Your task to perform on an android device: toggle improve location accuracy Image 0: 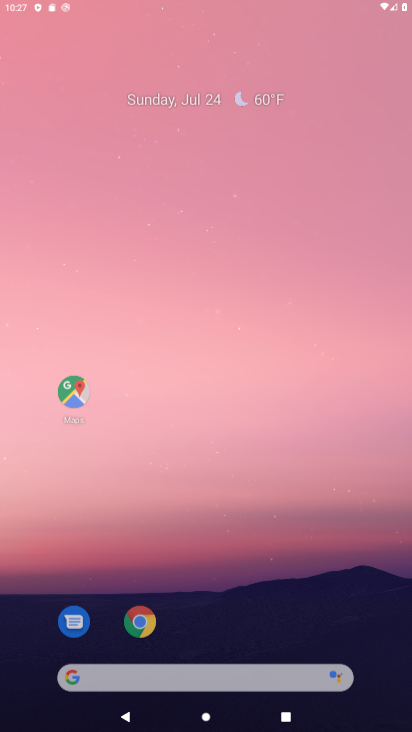
Step 0: press back button
Your task to perform on an android device: toggle improve location accuracy Image 1: 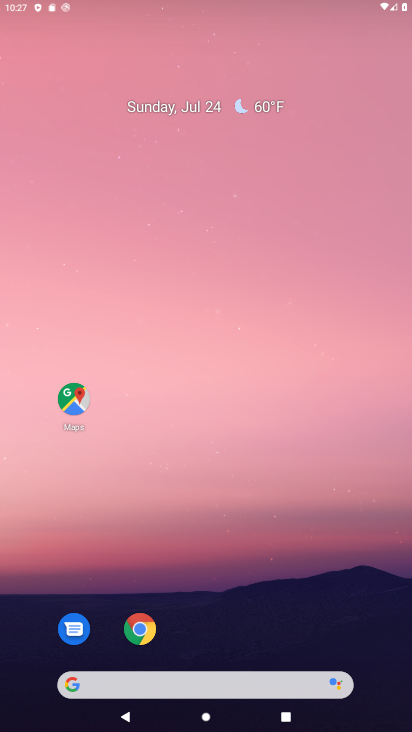
Step 1: drag from (270, 273) to (272, 208)
Your task to perform on an android device: toggle improve location accuracy Image 2: 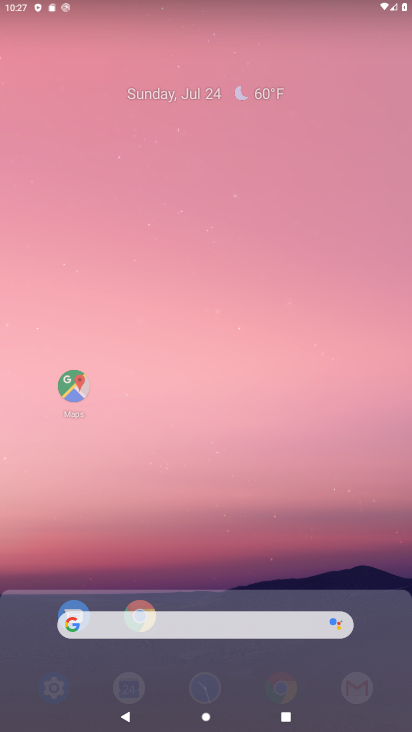
Step 2: drag from (241, 532) to (252, 215)
Your task to perform on an android device: toggle improve location accuracy Image 3: 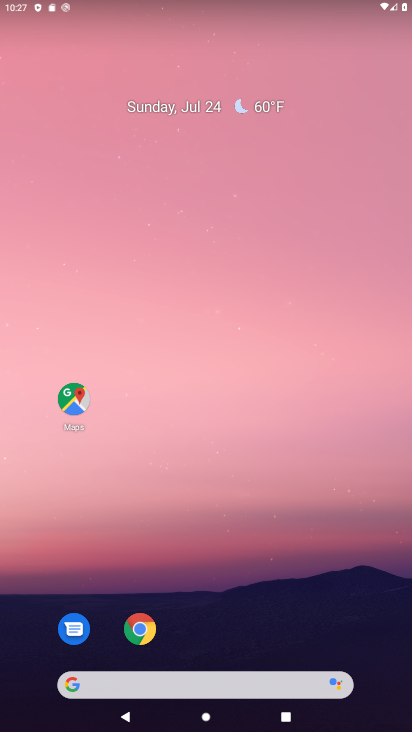
Step 3: drag from (295, 697) to (275, 175)
Your task to perform on an android device: toggle improve location accuracy Image 4: 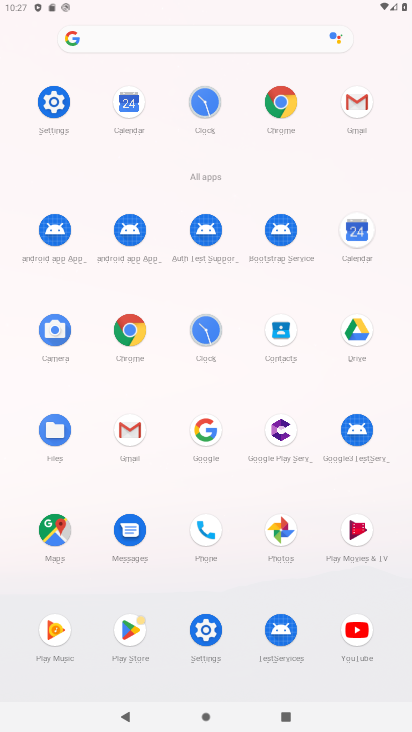
Step 4: drag from (246, 441) to (248, 318)
Your task to perform on an android device: toggle improve location accuracy Image 5: 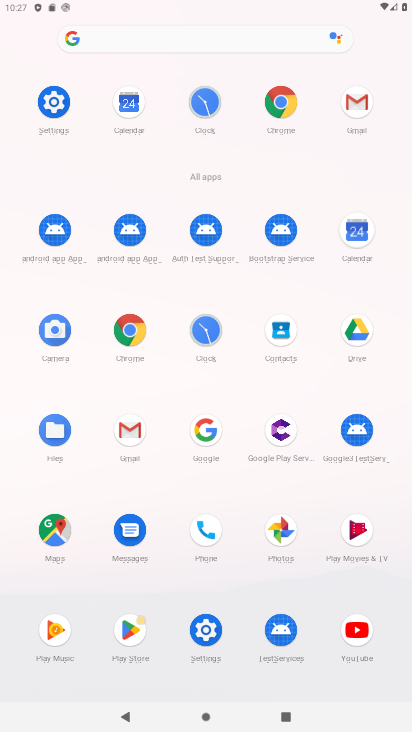
Step 5: click (211, 629)
Your task to perform on an android device: toggle improve location accuracy Image 6: 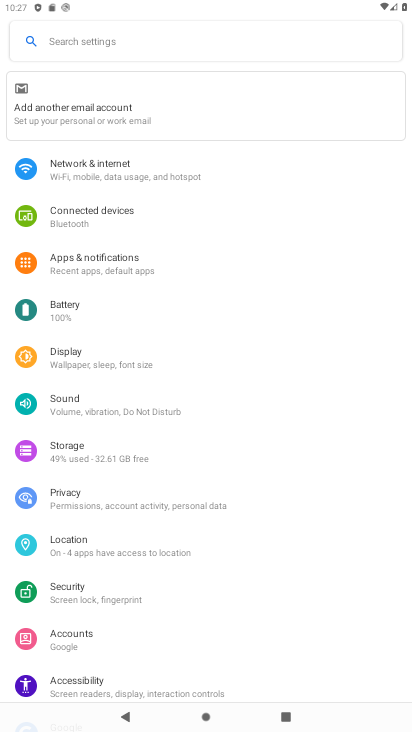
Step 6: click (87, 541)
Your task to perform on an android device: toggle improve location accuracy Image 7: 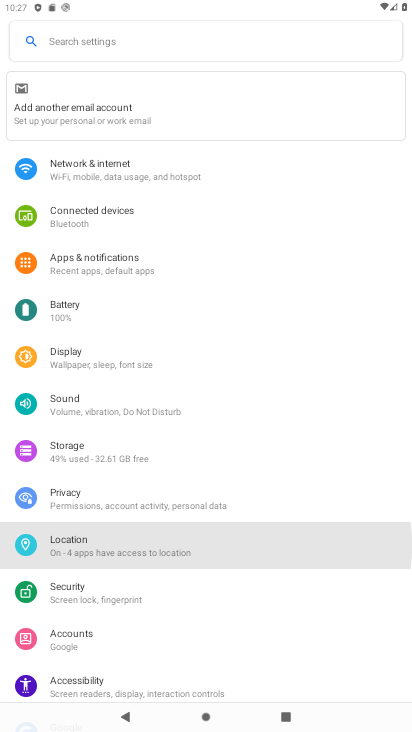
Step 7: click (94, 540)
Your task to perform on an android device: toggle improve location accuracy Image 8: 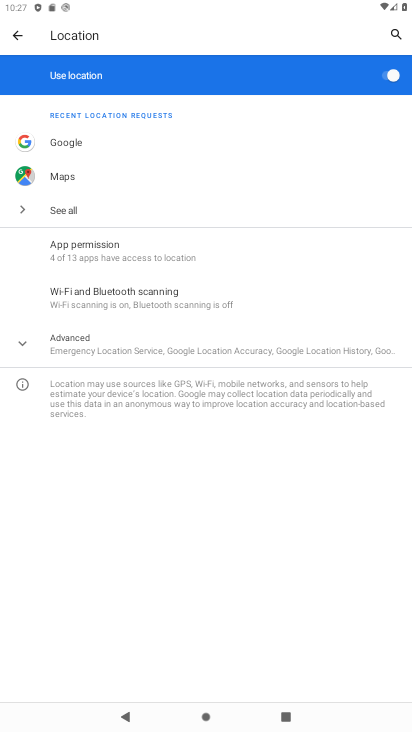
Step 8: click (76, 354)
Your task to perform on an android device: toggle improve location accuracy Image 9: 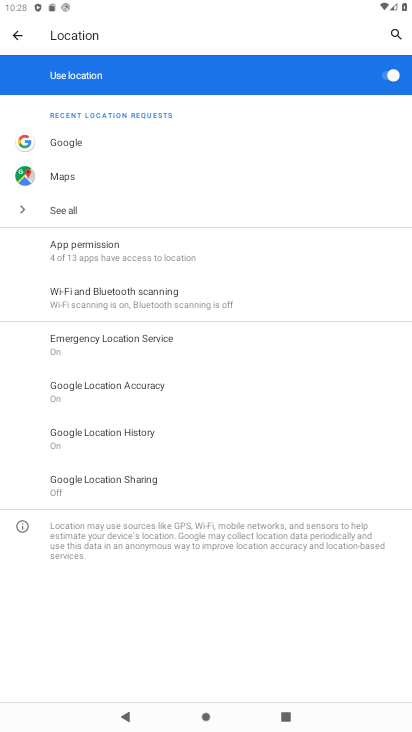
Step 9: click (134, 382)
Your task to perform on an android device: toggle improve location accuracy Image 10: 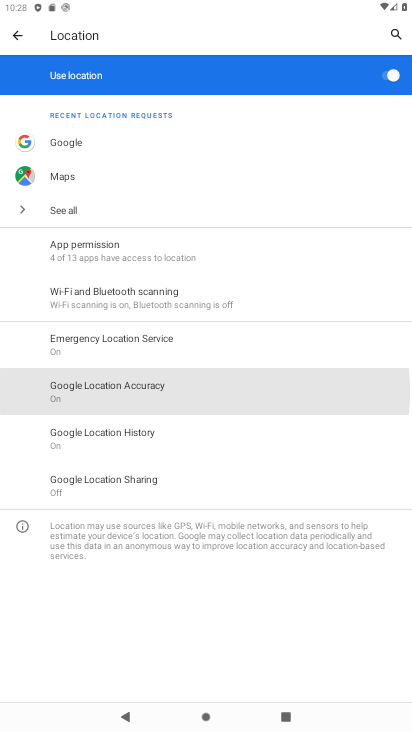
Step 10: click (136, 383)
Your task to perform on an android device: toggle improve location accuracy Image 11: 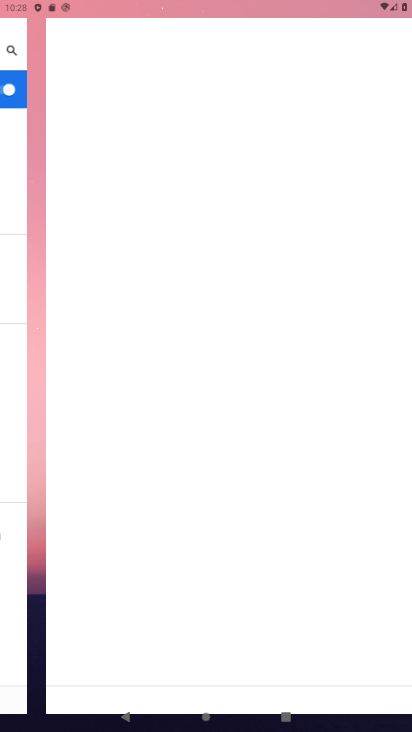
Step 11: click (141, 379)
Your task to perform on an android device: toggle improve location accuracy Image 12: 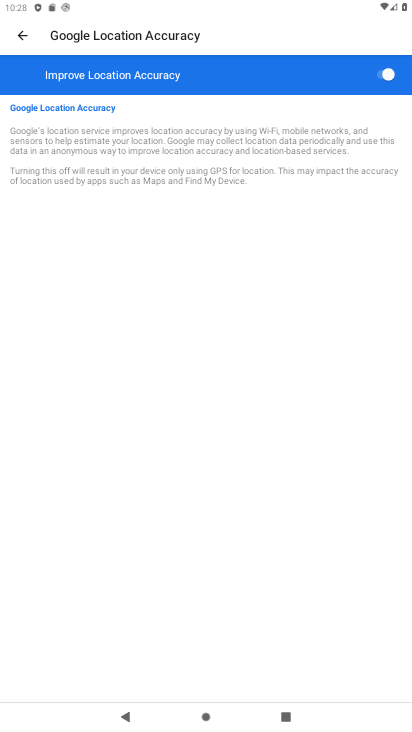
Step 12: click (385, 72)
Your task to perform on an android device: toggle improve location accuracy Image 13: 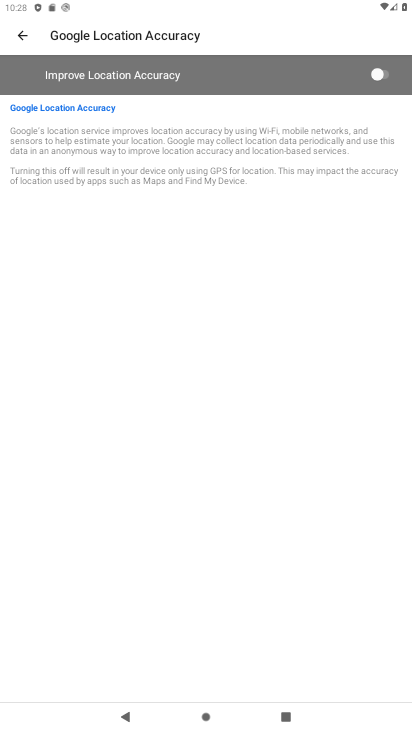
Step 13: task complete